Your task to perform on an android device: Open calendar and show me the second week of next month Image 0: 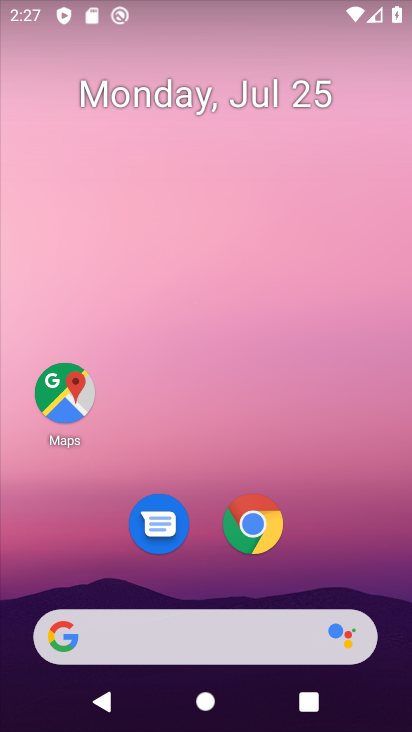
Step 0: drag from (345, 514) to (345, 1)
Your task to perform on an android device: Open calendar and show me the second week of next month Image 1: 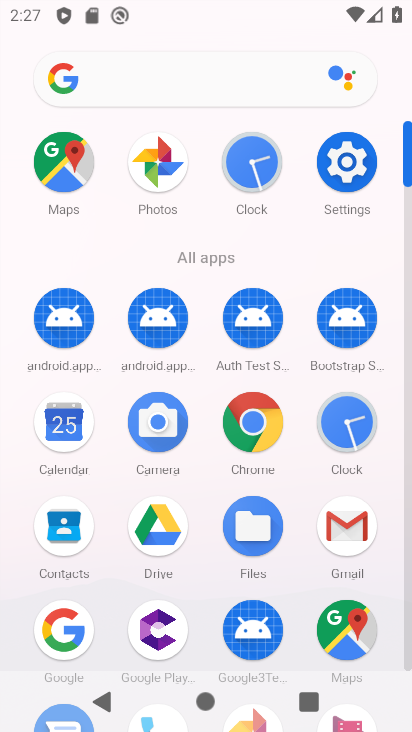
Step 1: click (74, 437)
Your task to perform on an android device: Open calendar and show me the second week of next month Image 2: 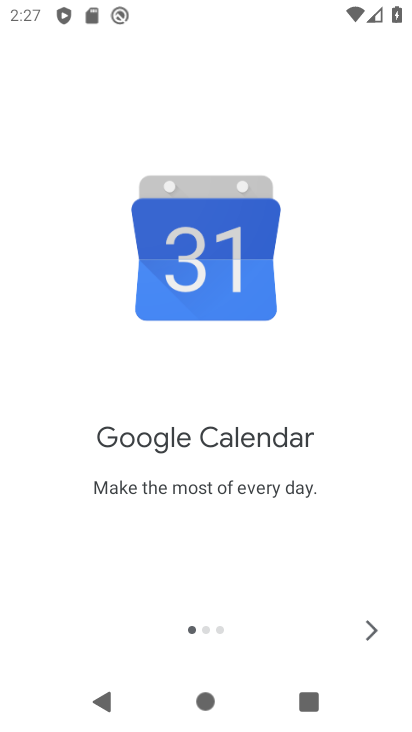
Step 2: click (372, 631)
Your task to perform on an android device: Open calendar and show me the second week of next month Image 3: 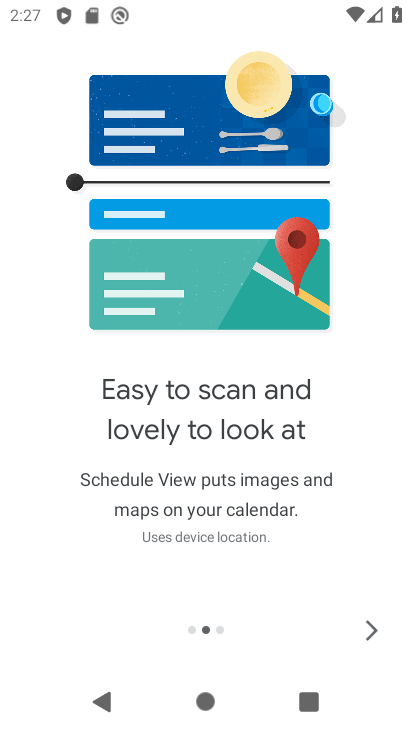
Step 3: click (372, 631)
Your task to perform on an android device: Open calendar and show me the second week of next month Image 4: 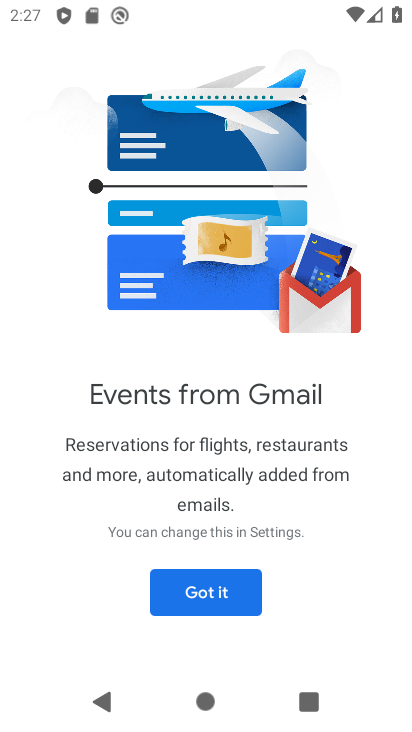
Step 4: click (241, 590)
Your task to perform on an android device: Open calendar and show me the second week of next month Image 5: 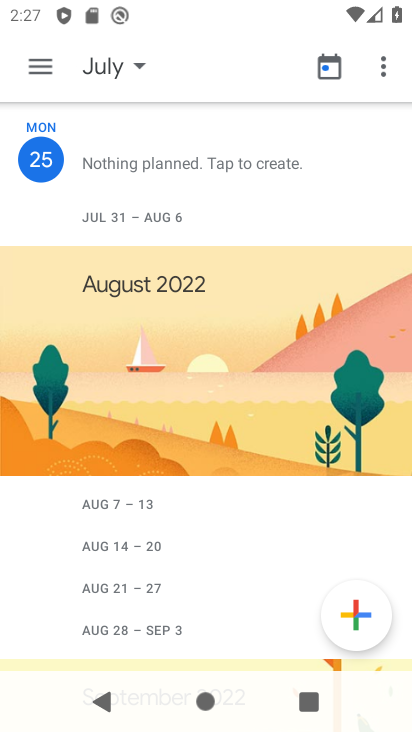
Step 5: click (40, 60)
Your task to perform on an android device: Open calendar and show me the second week of next month Image 6: 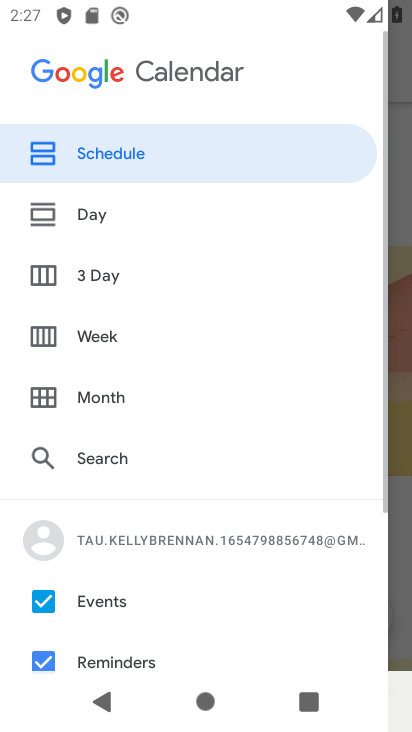
Step 6: click (45, 342)
Your task to perform on an android device: Open calendar and show me the second week of next month Image 7: 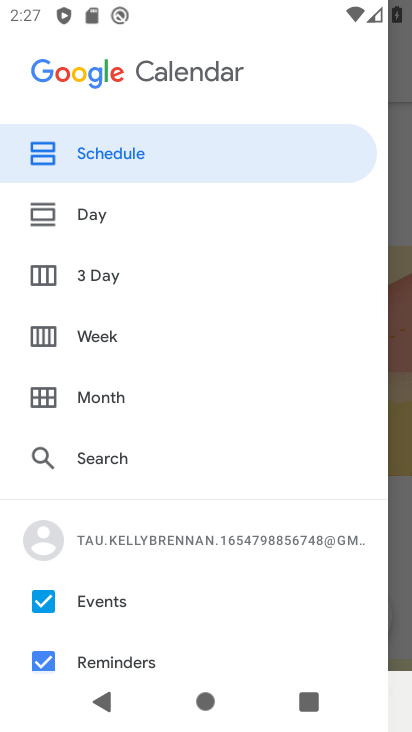
Step 7: click (49, 339)
Your task to perform on an android device: Open calendar and show me the second week of next month Image 8: 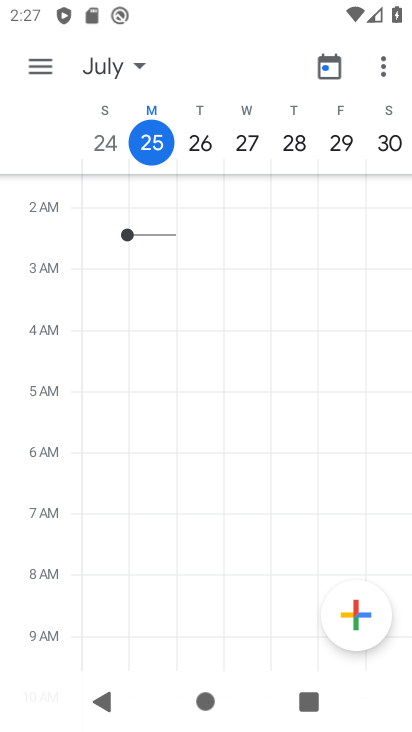
Step 8: task complete